Your task to perform on an android device: turn on bluetooth scan Image 0: 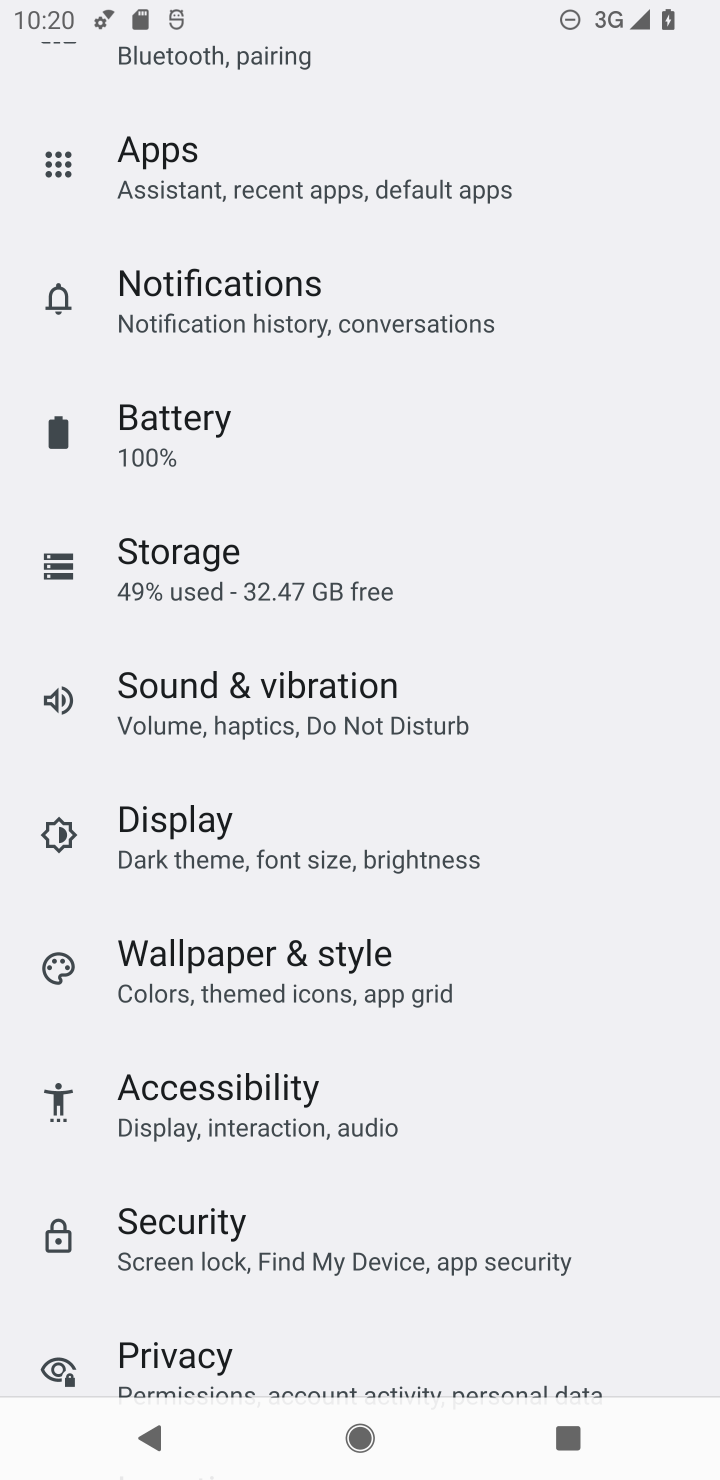
Step 0: drag from (209, 1343) to (220, 566)
Your task to perform on an android device: turn on bluetooth scan Image 1: 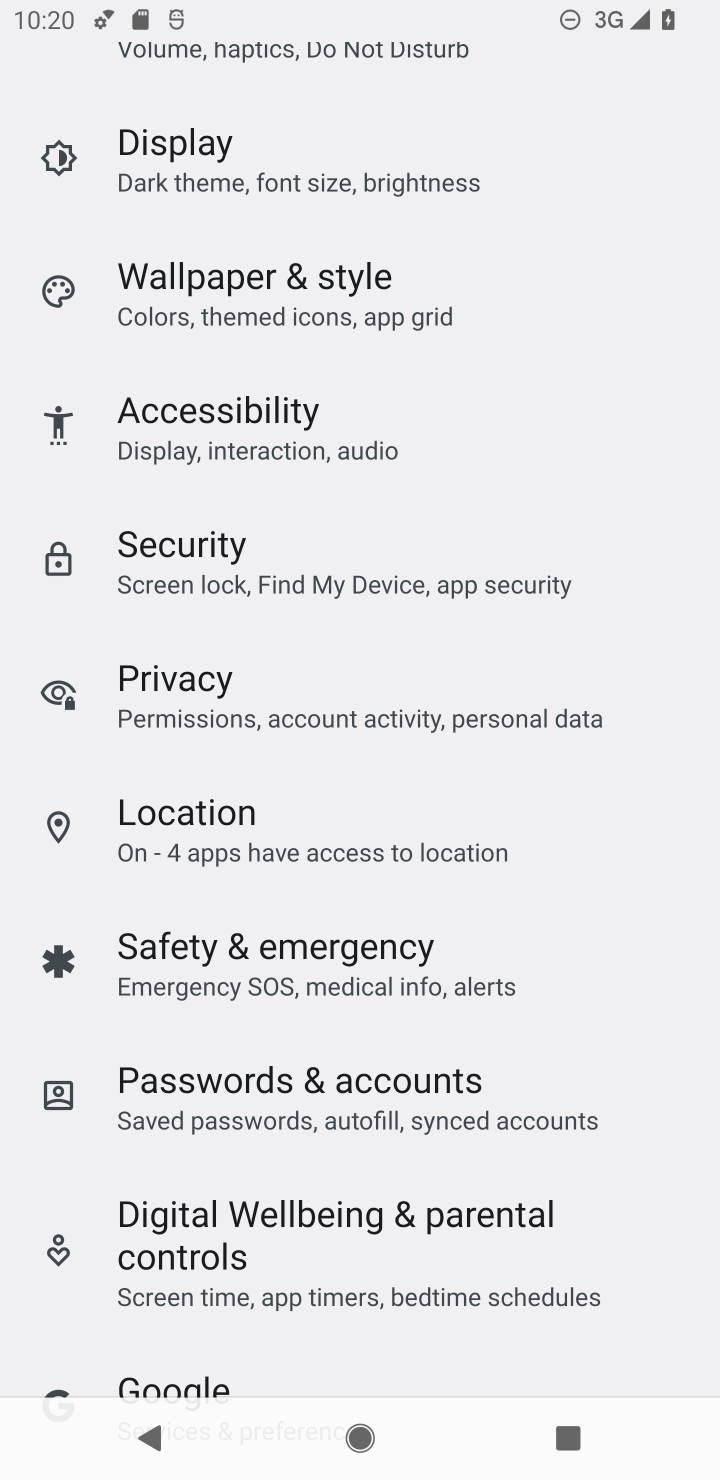
Step 1: click (195, 815)
Your task to perform on an android device: turn on bluetooth scan Image 2: 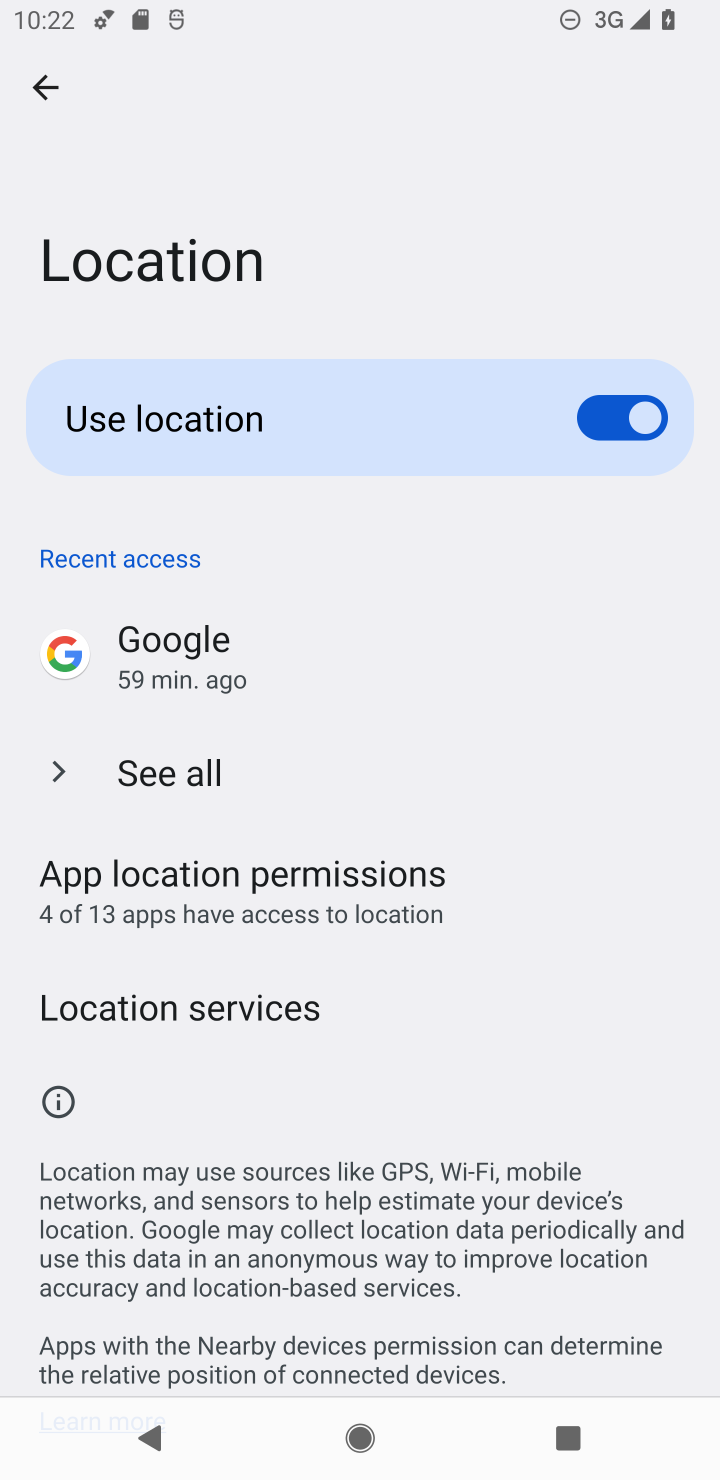
Step 2: click (283, 1006)
Your task to perform on an android device: turn on bluetooth scan Image 3: 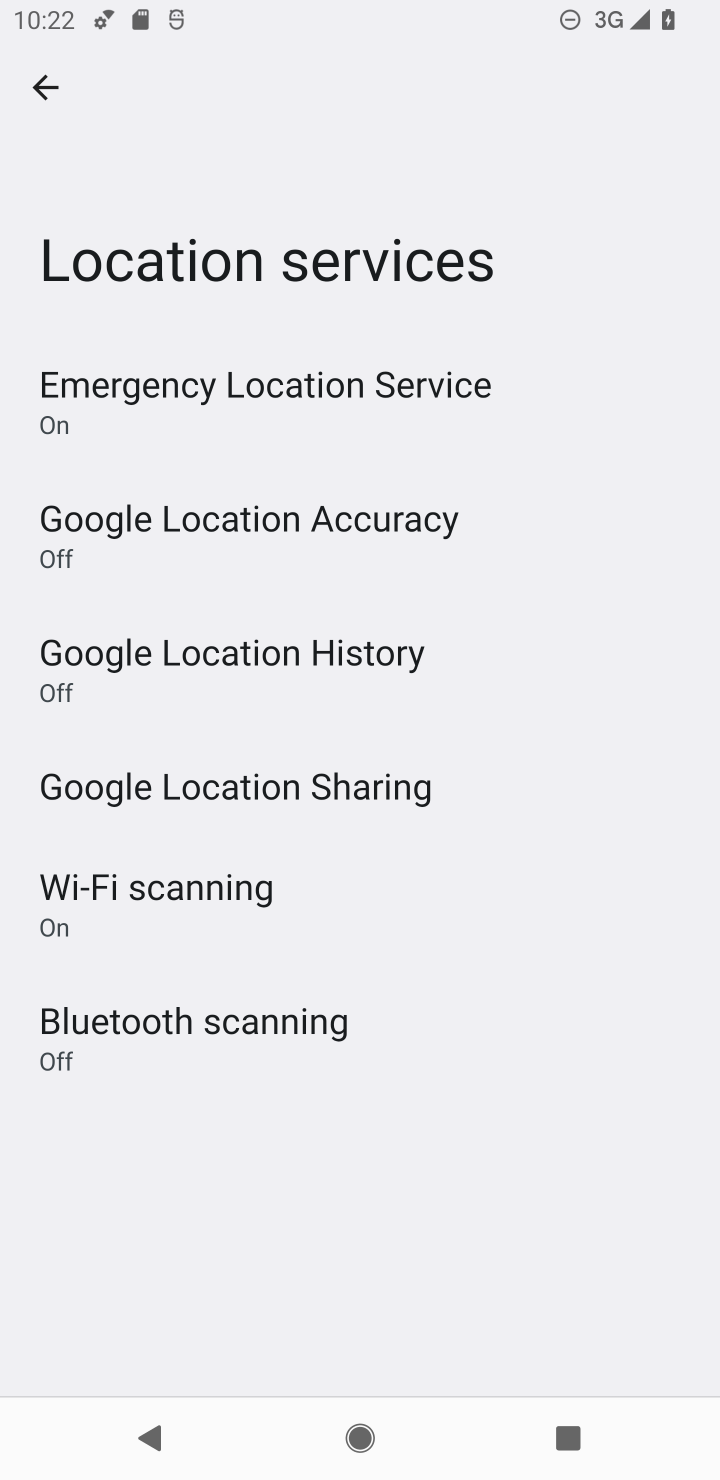
Step 3: click (181, 1029)
Your task to perform on an android device: turn on bluetooth scan Image 4: 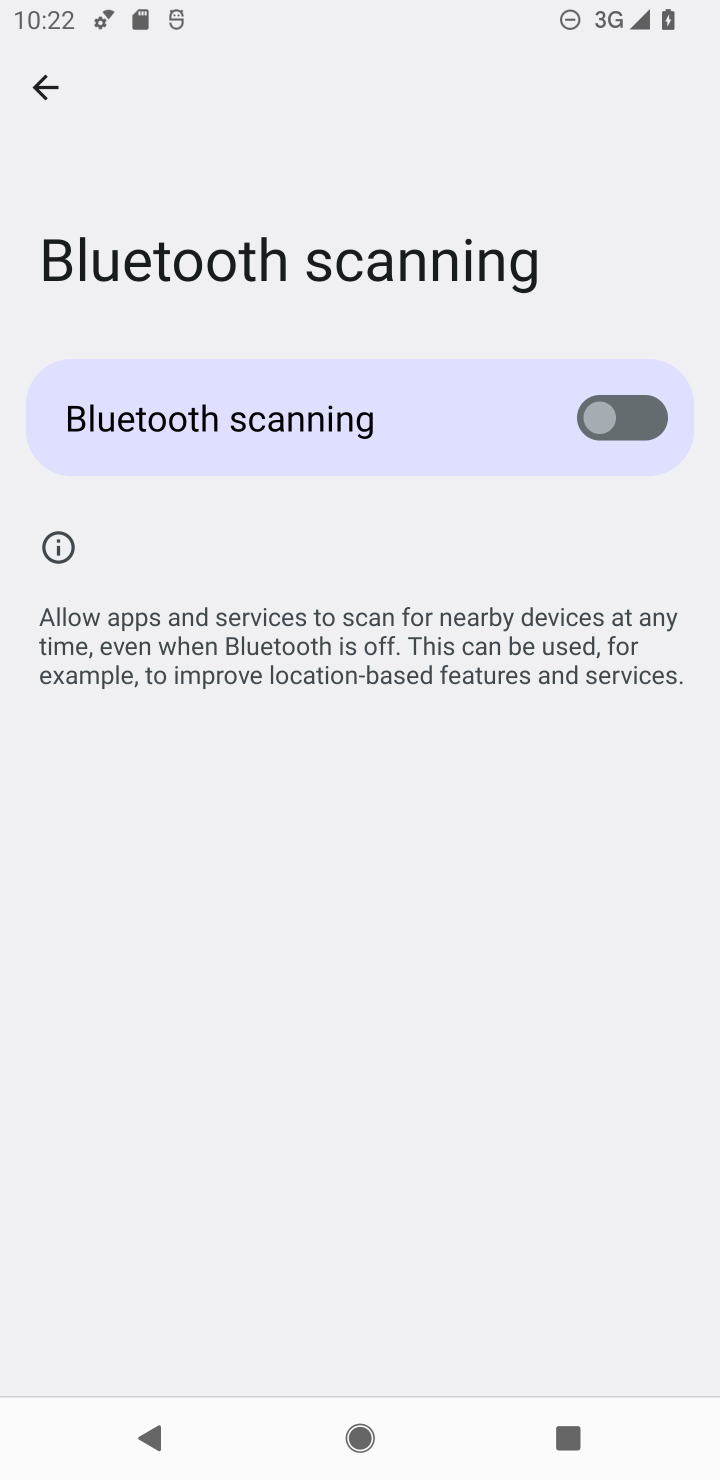
Step 4: click (600, 420)
Your task to perform on an android device: turn on bluetooth scan Image 5: 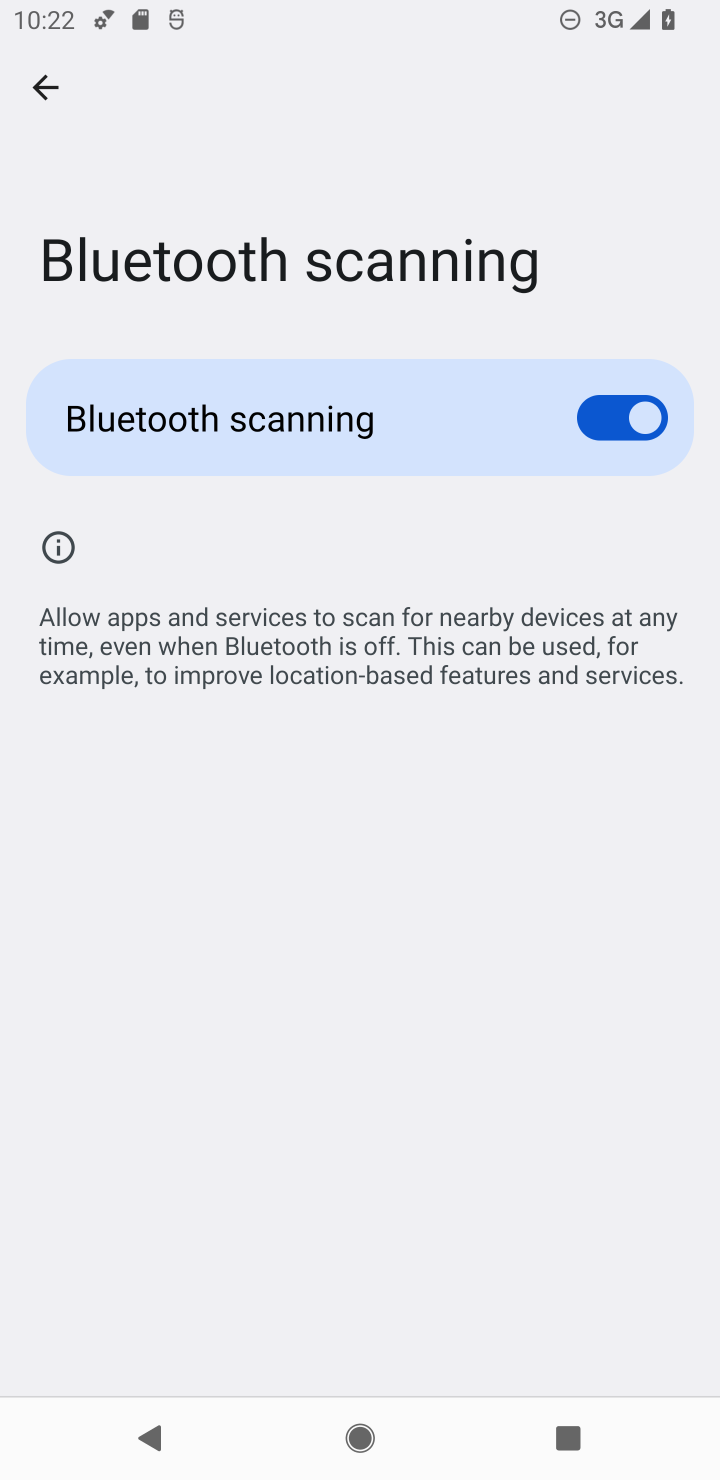
Step 5: task complete